Your task to perform on an android device: set an alarm Image 0: 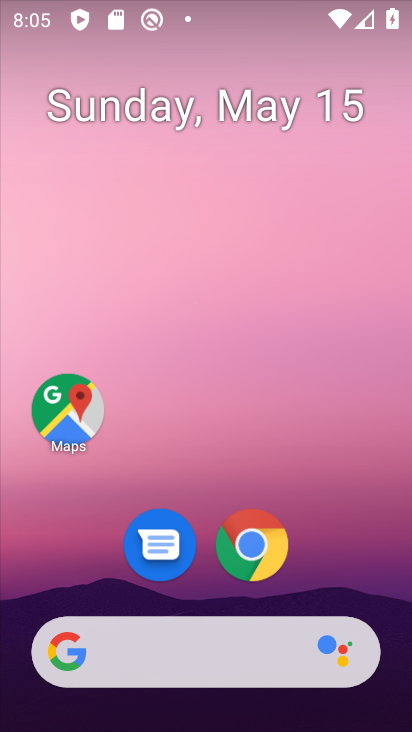
Step 0: drag from (358, 571) to (409, 411)
Your task to perform on an android device: set an alarm Image 1: 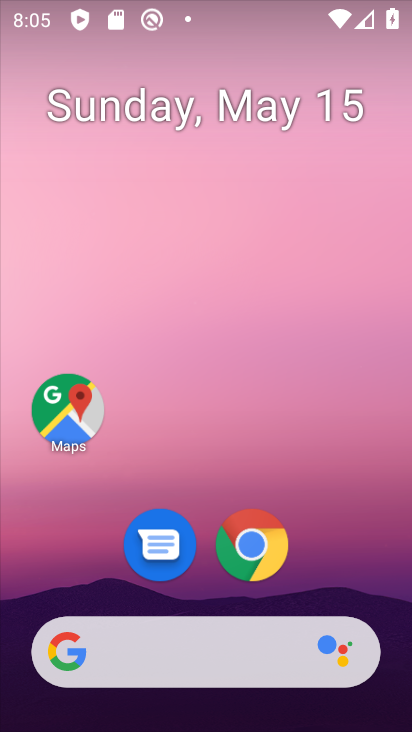
Step 1: drag from (343, 557) to (407, 495)
Your task to perform on an android device: set an alarm Image 2: 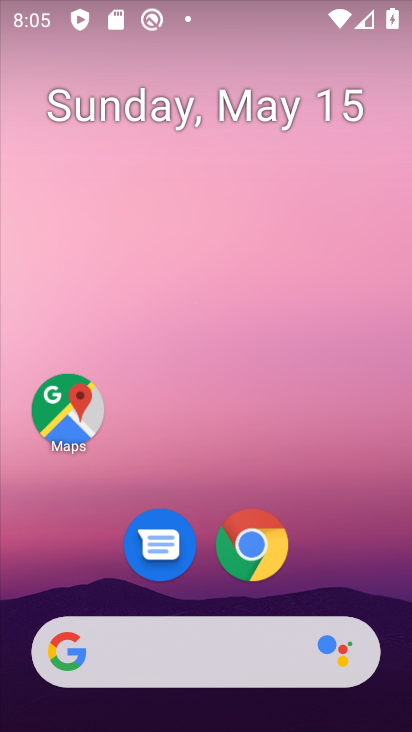
Step 2: drag from (356, 525) to (407, 465)
Your task to perform on an android device: set an alarm Image 3: 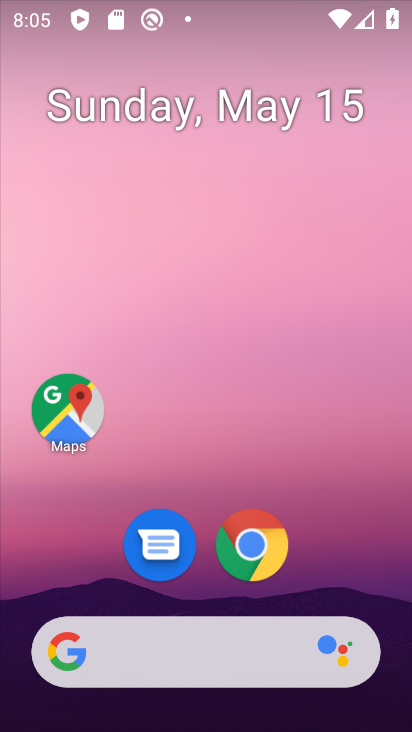
Step 3: click (359, 464)
Your task to perform on an android device: set an alarm Image 4: 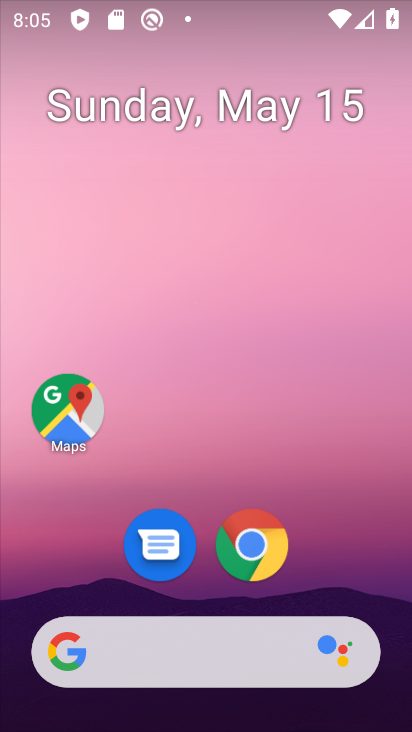
Step 4: drag from (373, 568) to (408, 442)
Your task to perform on an android device: set an alarm Image 5: 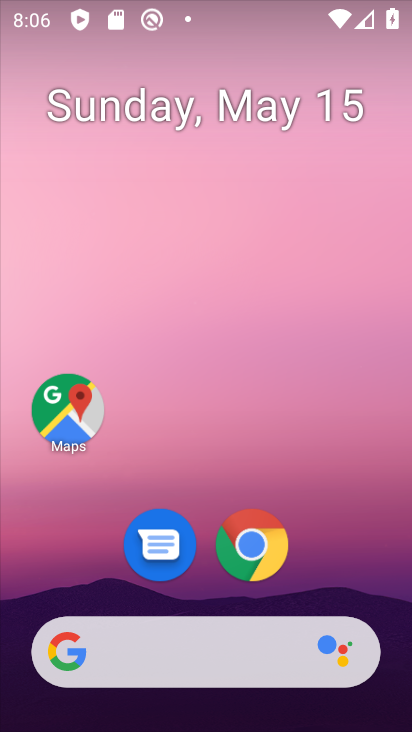
Step 5: click (332, 393)
Your task to perform on an android device: set an alarm Image 6: 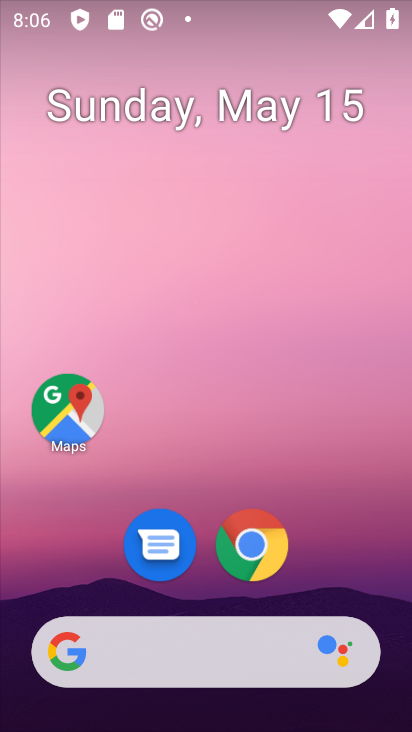
Step 6: drag from (371, 562) to (407, 462)
Your task to perform on an android device: set an alarm Image 7: 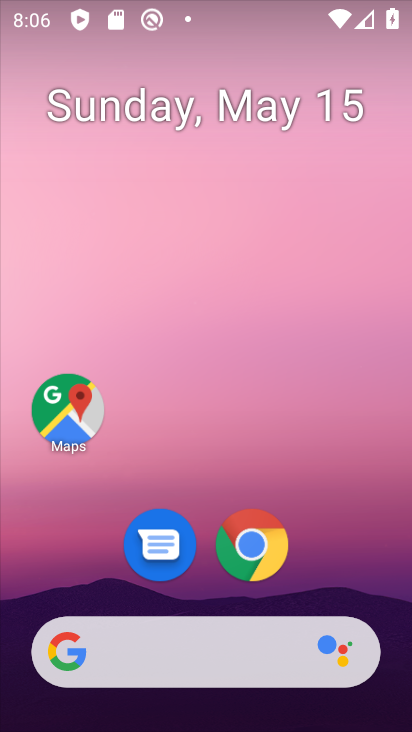
Step 7: drag from (361, 506) to (406, 511)
Your task to perform on an android device: set an alarm Image 8: 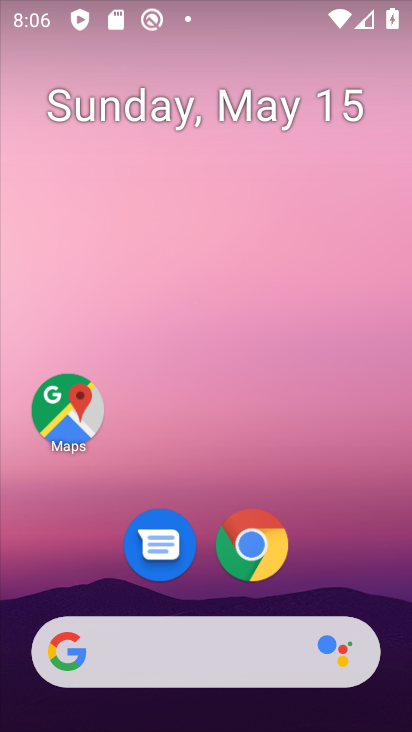
Step 8: drag from (335, 569) to (408, 413)
Your task to perform on an android device: set an alarm Image 9: 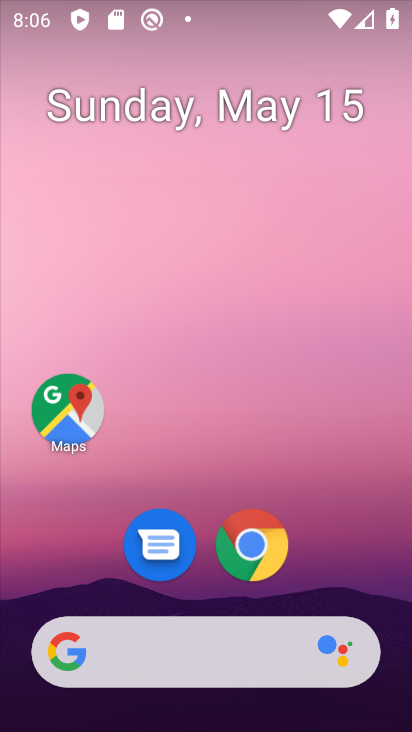
Step 9: click (355, 387)
Your task to perform on an android device: set an alarm Image 10: 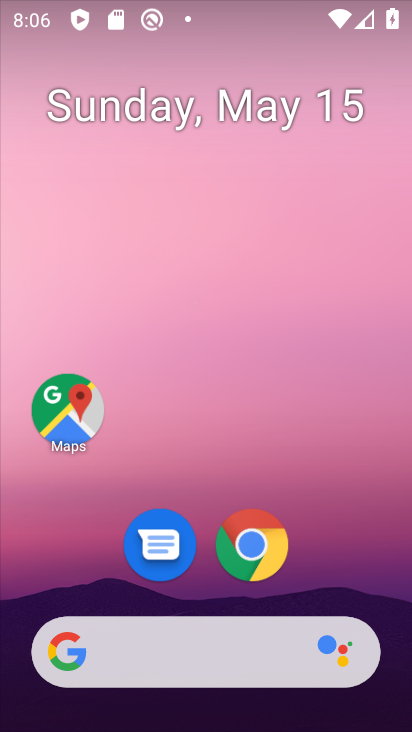
Step 10: drag from (334, 446) to (384, 13)
Your task to perform on an android device: set an alarm Image 11: 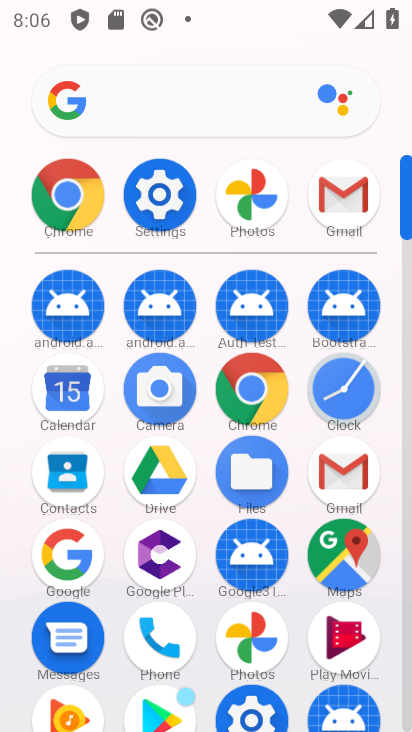
Step 11: click (357, 397)
Your task to perform on an android device: set an alarm Image 12: 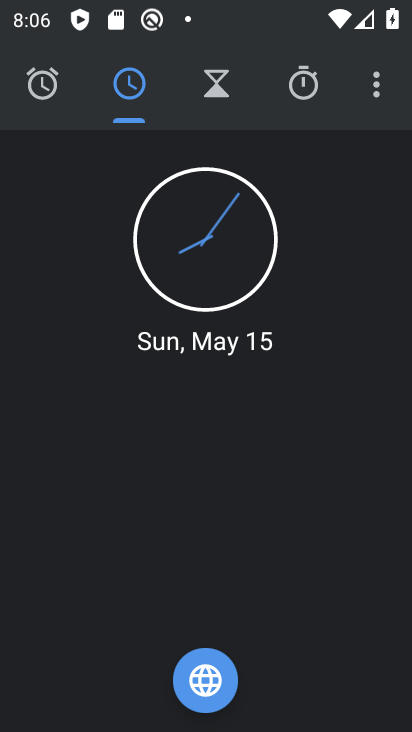
Step 12: click (33, 92)
Your task to perform on an android device: set an alarm Image 13: 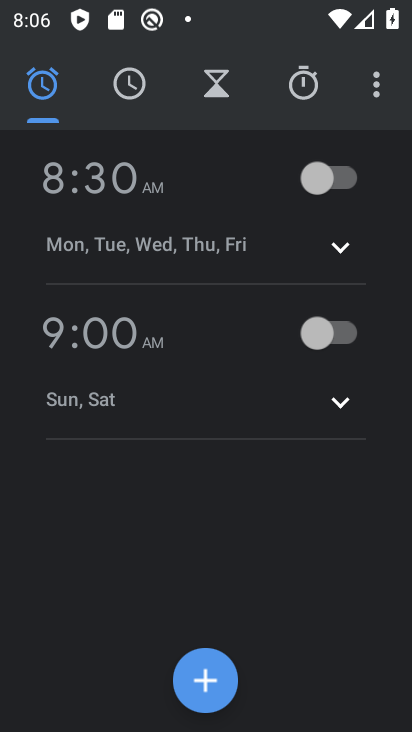
Step 13: click (218, 660)
Your task to perform on an android device: set an alarm Image 14: 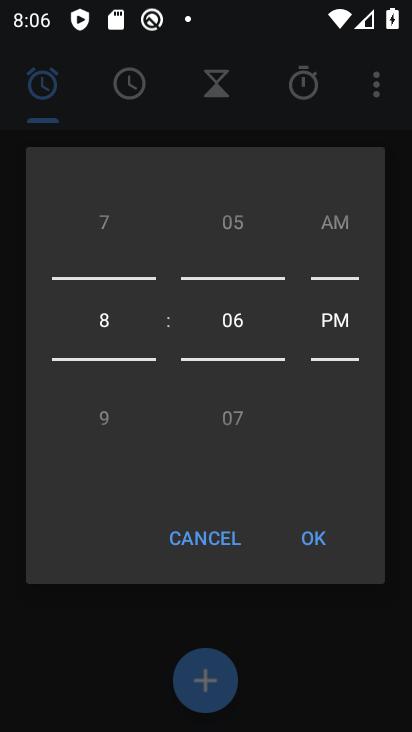
Step 14: click (312, 538)
Your task to perform on an android device: set an alarm Image 15: 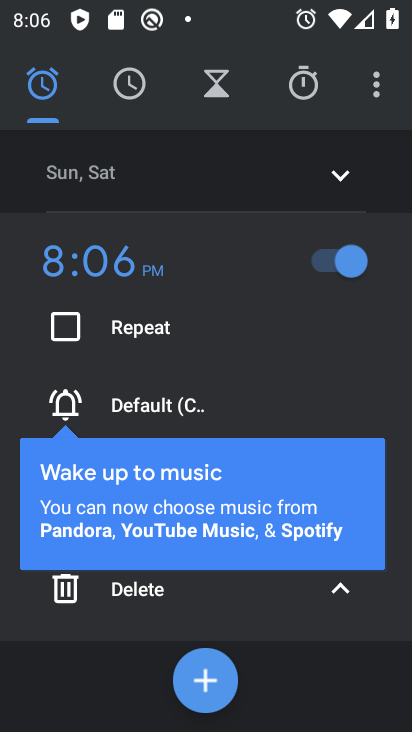
Step 15: task complete